Your task to perform on an android device: Go to location settings Image 0: 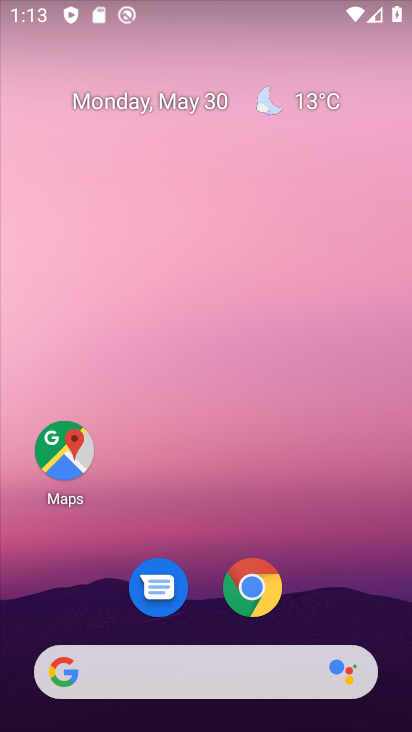
Step 0: drag from (345, 483) to (191, 36)
Your task to perform on an android device: Go to location settings Image 1: 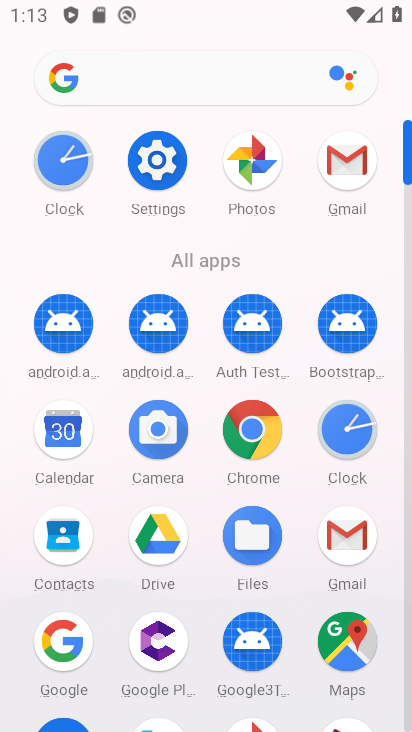
Step 1: click (171, 168)
Your task to perform on an android device: Go to location settings Image 2: 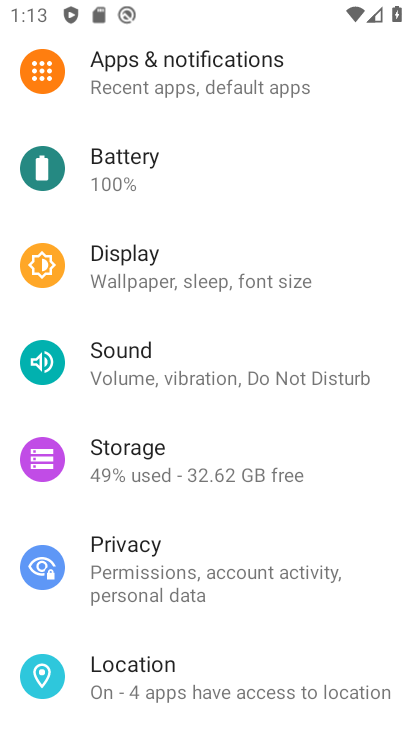
Step 2: click (225, 691)
Your task to perform on an android device: Go to location settings Image 3: 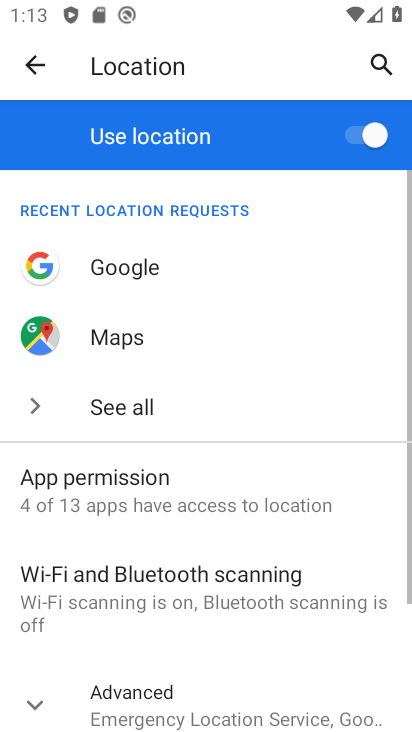
Step 3: task complete